Your task to perform on an android device: Open Reddit.com Image 0: 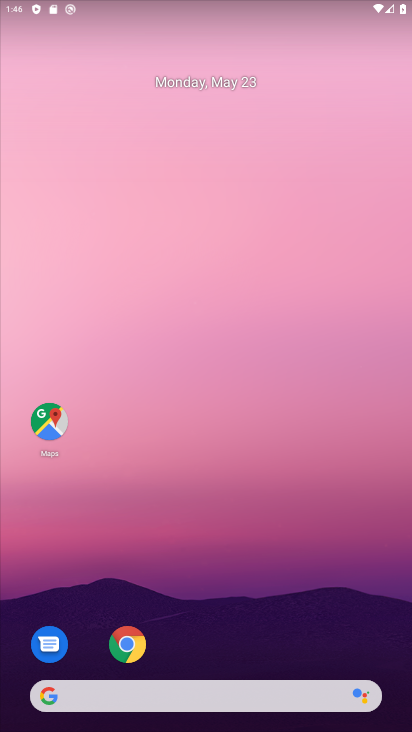
Step 0: drag from (347, 487) to (303, 0)
Your task to perform on an android device: Open Reddit.com Image 1: 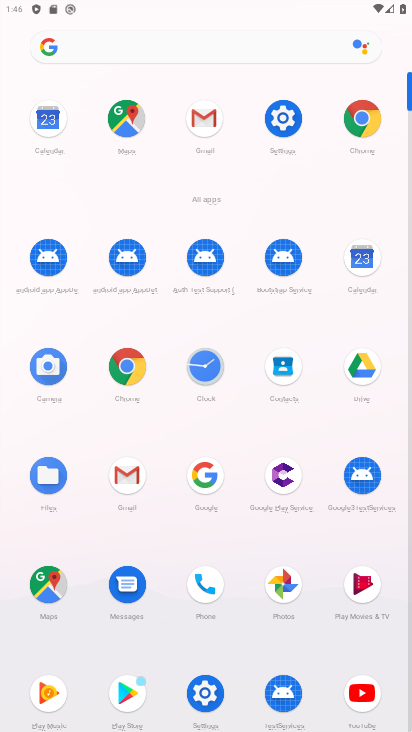
Step 1: click (363, 113)
Your task to perform on an android device: Open Reddit.com Image 2: 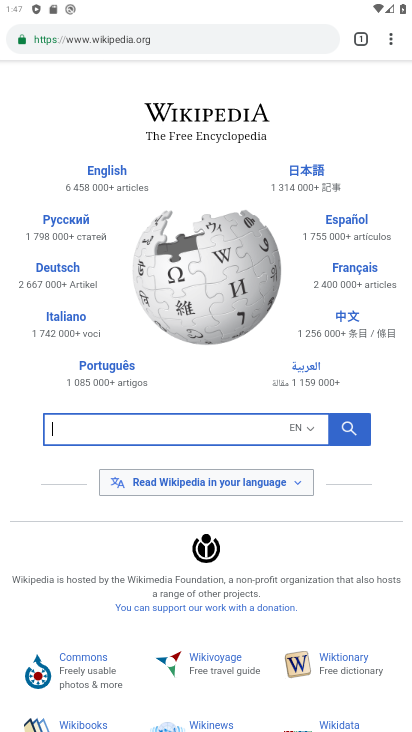
Step 2: click (132, 47)
Your task to perform on an android device: Open Reddit.com Image 3: 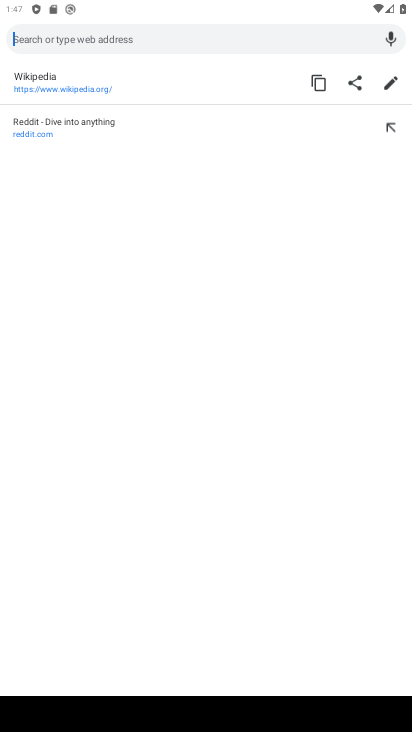
Step 3: type "reddit"
Your task to perform on an android device: Open Reddit.com Image 4: 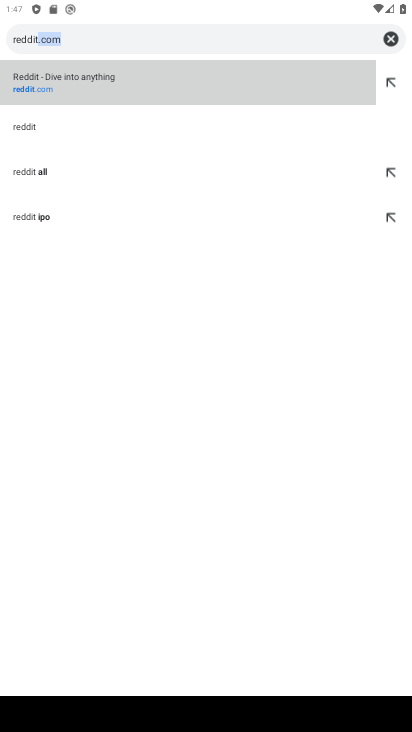
Step 4: click (33, 125)
Your task to perform on an android device: Open Reddit.com Image 5: 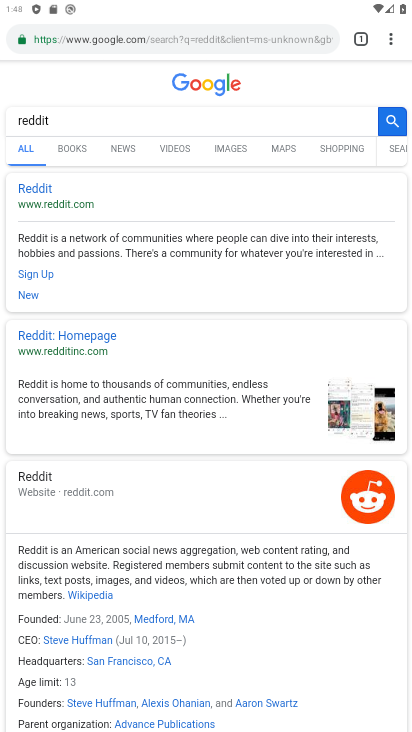
Step 5: task complete